Your task to perform on an android device: Turn off the flashlight Image 0: 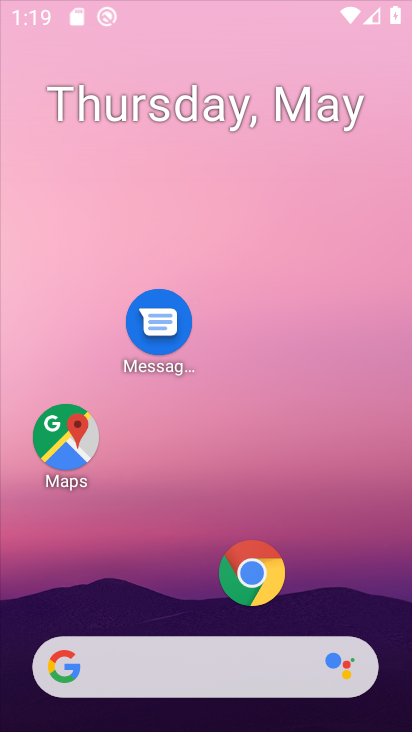
Step 0: click (209, 157)
Your task to perform on an android device: Turn off the flashlight Image 1: 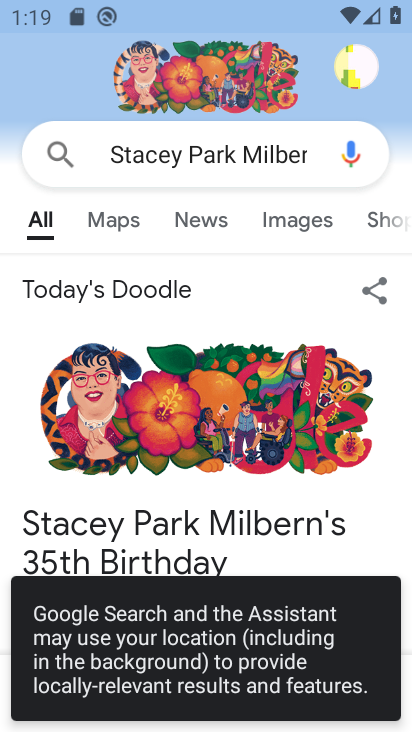
Step 1: press home button
Your task to perform on an android device: Turn off the flashlight Image 2: 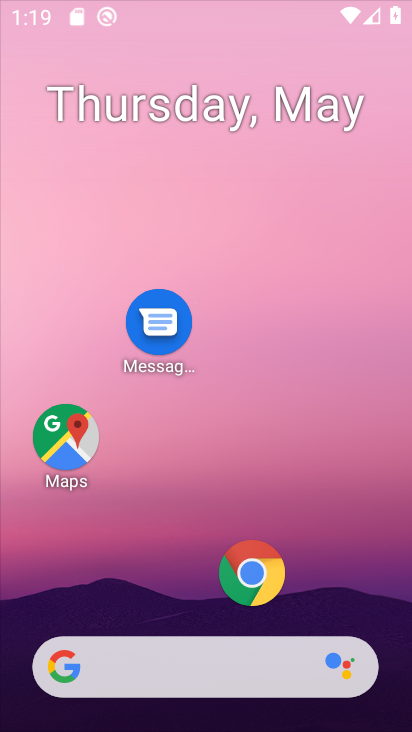
Step 2: drag from (241, 461) to (256, 23)
Your task to perform on an android device: Turn off the flashlight Image 3: 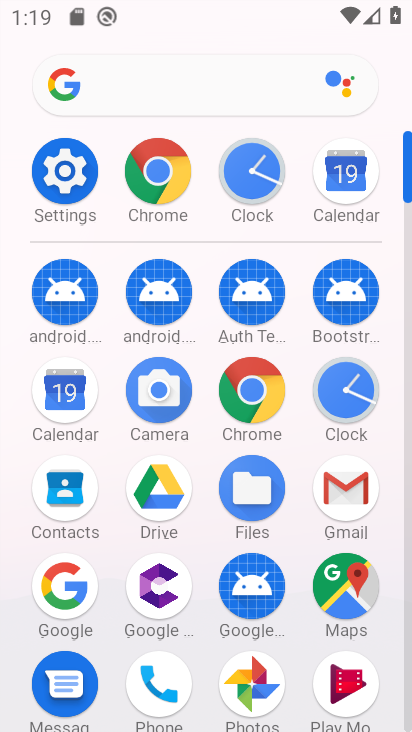
Step 3: click (52, 195)
Your task to perform on an android device: Turn off the flashlight Image 4: 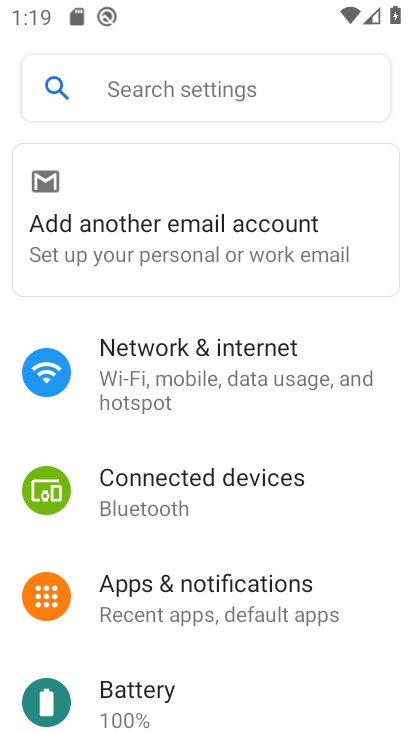
Step 4: click (199, 85)
Your task to perform on an android device: Turn off the flashlight Image 5: 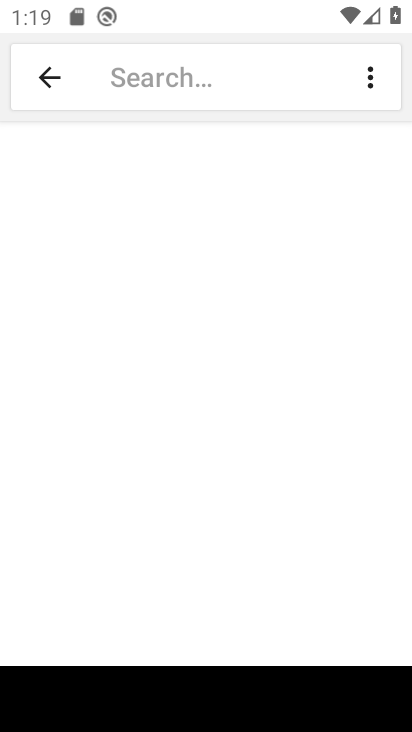
Step 5: type "flashlight"
Your task to perform on an android device: Turn off the flashlight Image 6: 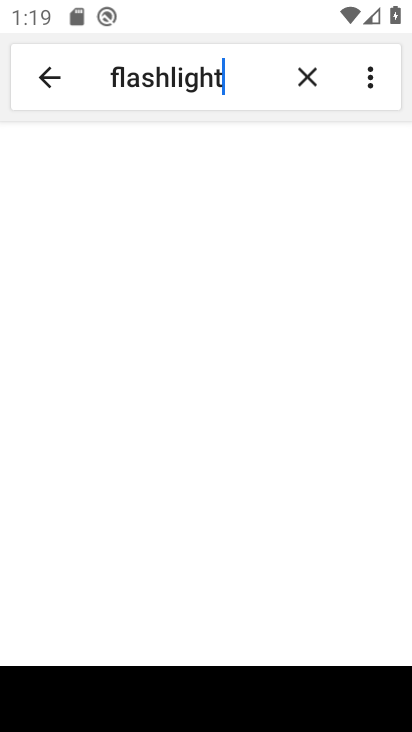
Step 6: type ""
Your task to perform on an android device: Turn off the flashlight Image 7: 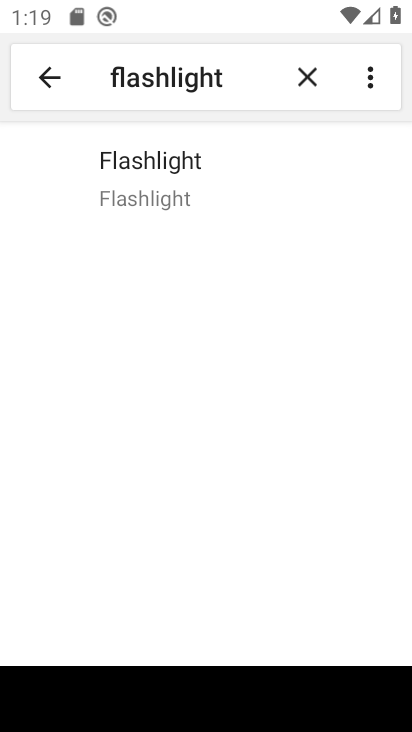
Step 7: click (164, 165)
Your task to perform on an android device: Turn off the flashlight Image 8: 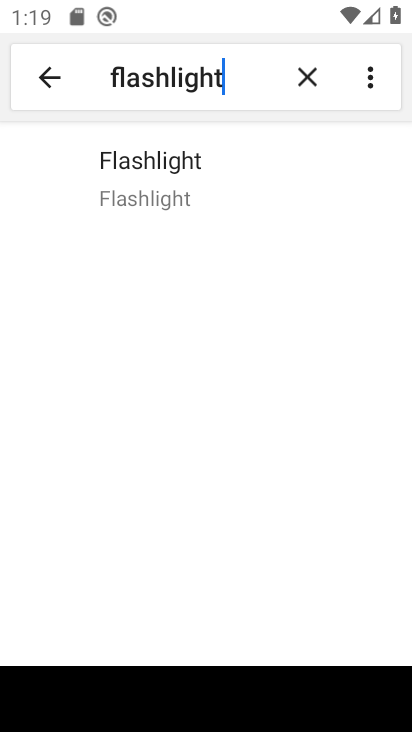
Step 8: task complete